Your task to perform on an android device: Go to display settings Image 0: 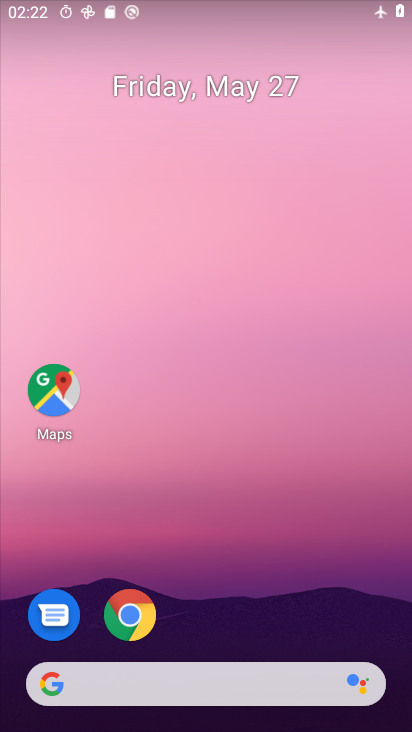
Step 0: drag from (378, 636) to (379, 162)
Your task to perform on an android device: Go to display settings Image 1: 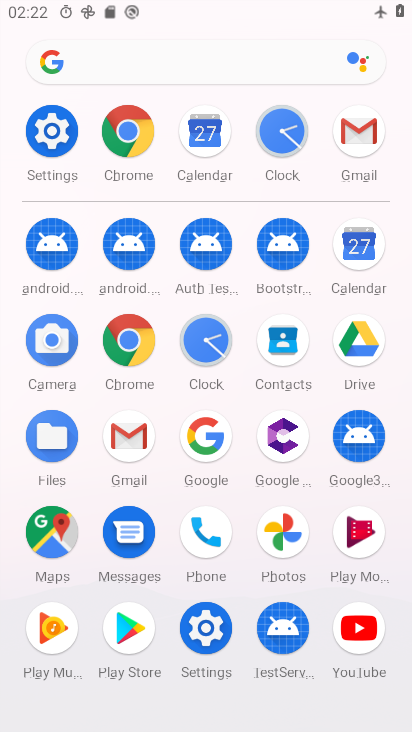
Step 1: click (194, 628)
Your task to perform on an android device: Go to display settings Image 2: 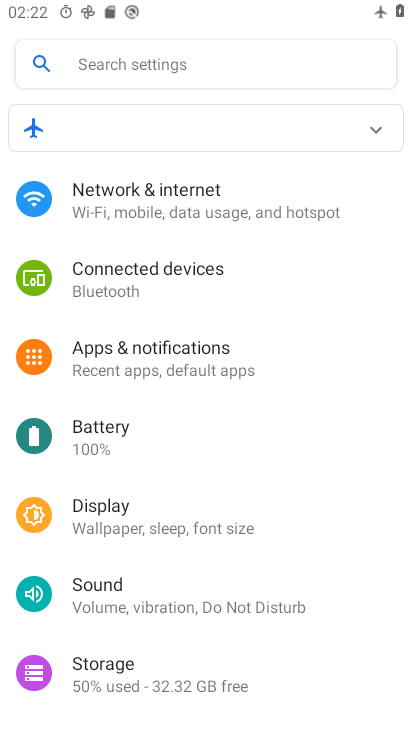
Step 2: drag from (336, 631) to (342, 577)
Your task to perform on an android device: Go to display settings Image 3: 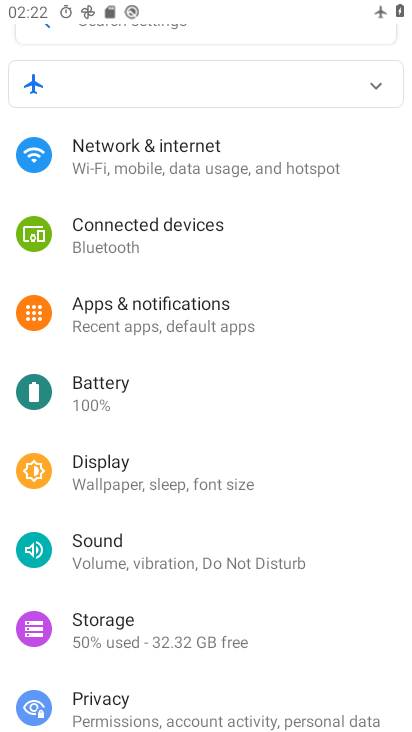
Step 3: drag from (340, 633) to (340, 564)
Your task to perform on an android device: Go to display settings Image 4: 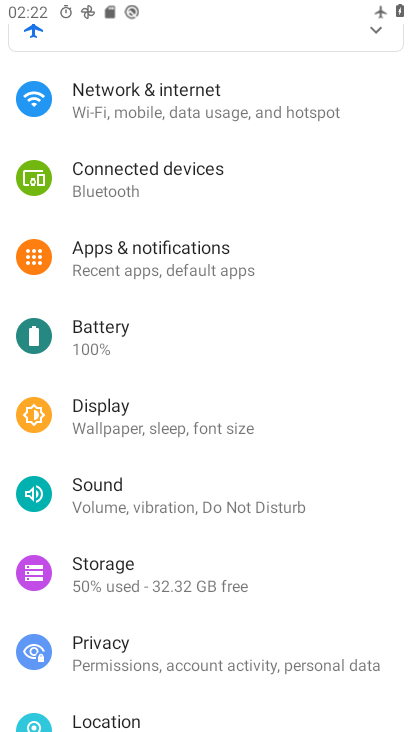
Step 4: drag from (335, 643) to (337, 550)
Your task to perform on an android device: Go to display settings Image 5: 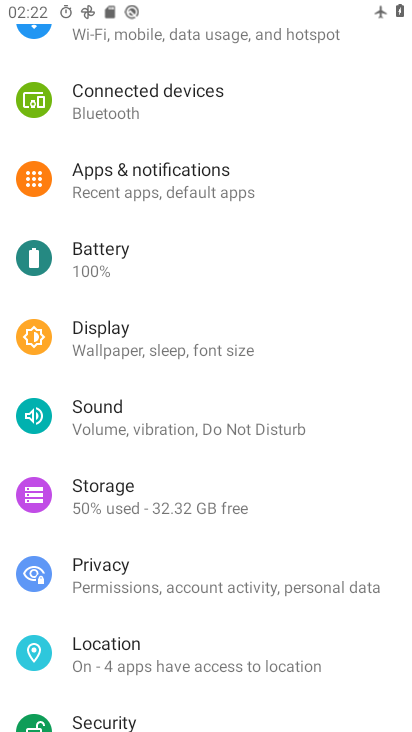
Step 5: drag from (335, 631) to (342, 575)
Your task to perform on an android device: Go to display settings Image 6: 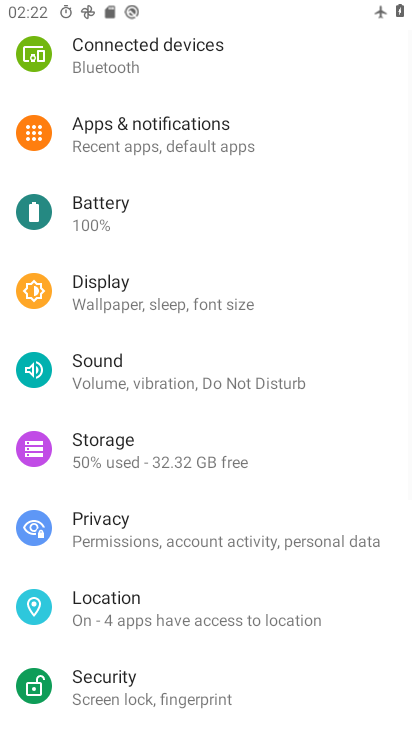
Step 6: drag from (345, 655) to (350, 568)
Your task to perform on an android device: Go to display settings Image 7: 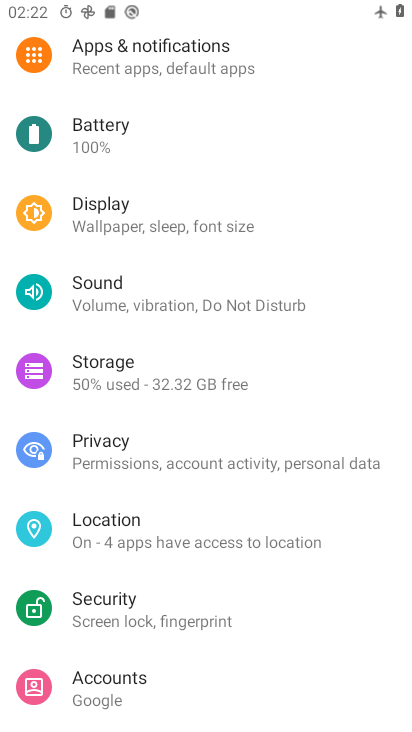
Step 7: drag from (348, 643) to (355, 573)
Your task to perform on an android device: Go to display settings Image 8: 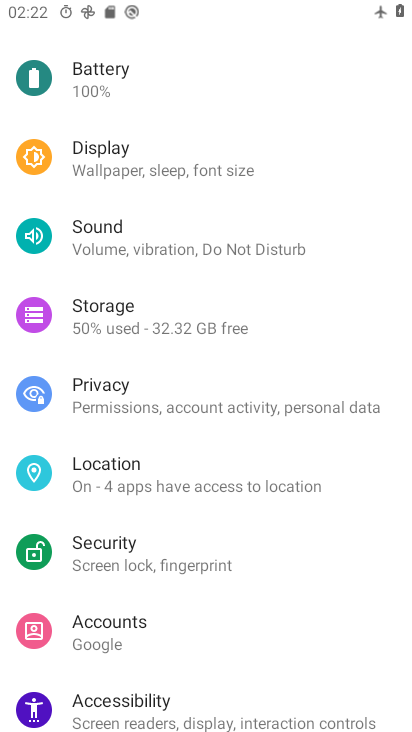
Step 8: drag from (348, 656) to (353, 572)
Your task to perform on an android device: Go to display settings Image 9: 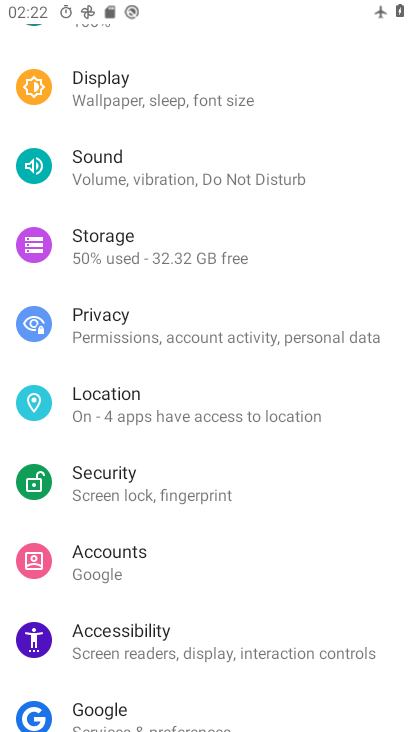
Step 9: drag from (339, 631) to (336, 535)
Your task to perform on an android device: Go to display settings Image 10: 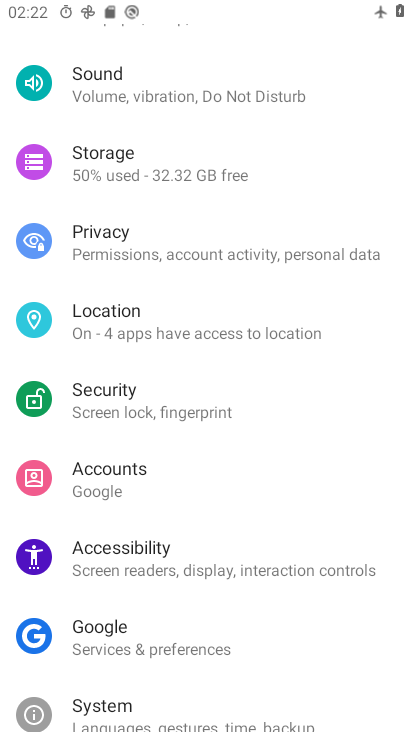
Step 10: drag from (320, 634) to (324, 557)
Your task to perform on an android device: Go to display settings Image 11: 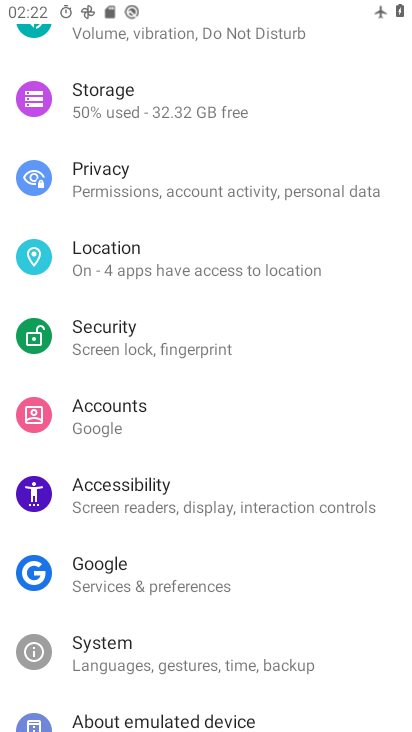
Step 11: drag from (326, 642) to (332, 550)
Your task to perform on an android device: Go to display settings Image 12: 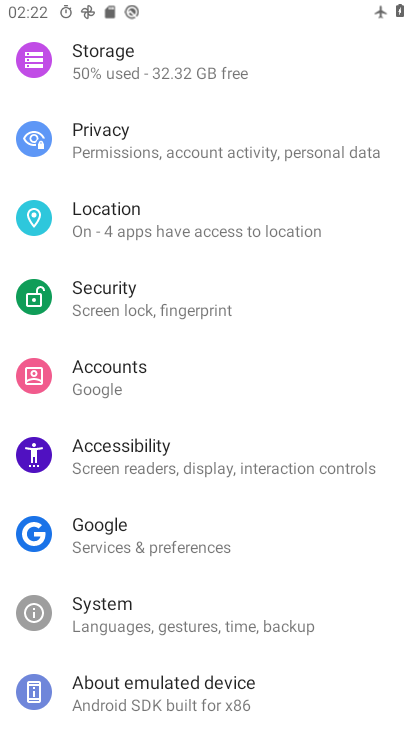
Step 12: drag from (334, 629) to (337, 556)
Your task to perform on an android device: Go to display settings Image 13: 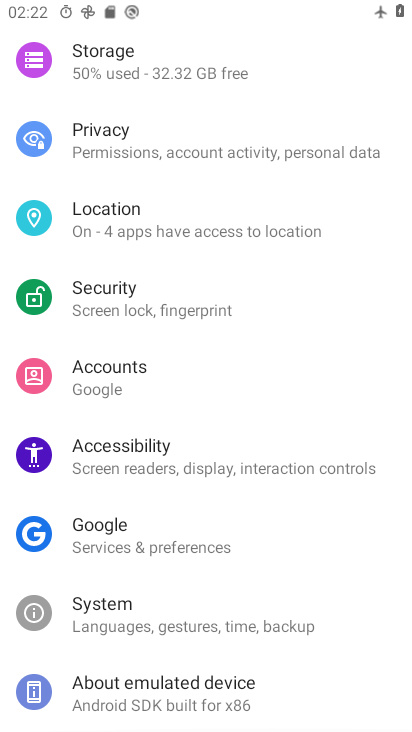
Step 13: drag from (334, 482) to (336, 560)
Your task to perform on an android device: Go to display settings Image 14: 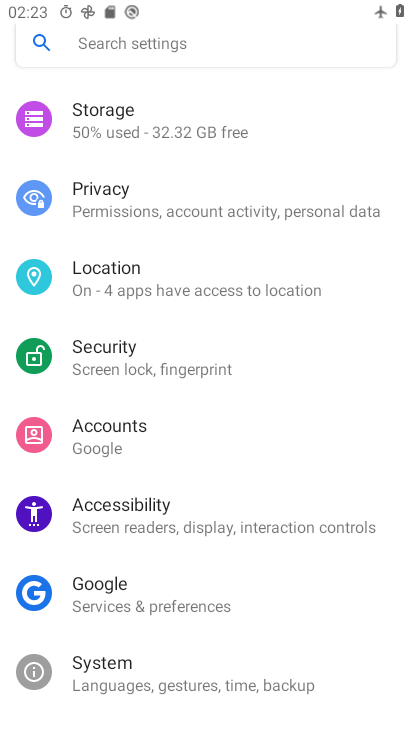
Step 14: drag from (336, 449) to (341, 542)
Your task to perform on an android device: Go to display settings Image 15: 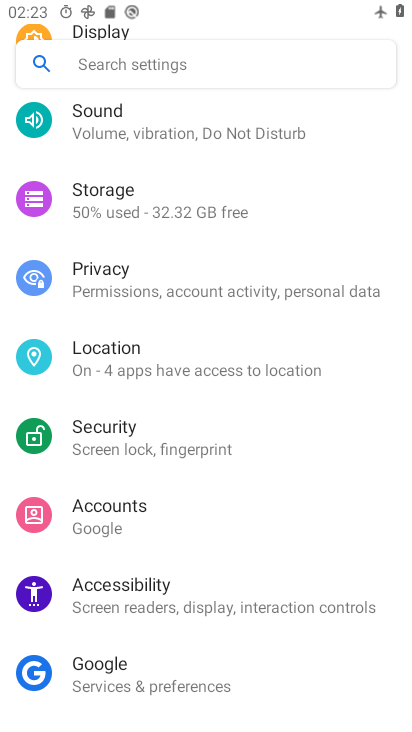
Step 15: drag from (341, 466) to (341, 560)
Your task to perform on an android device: Go to display settings Image 16: 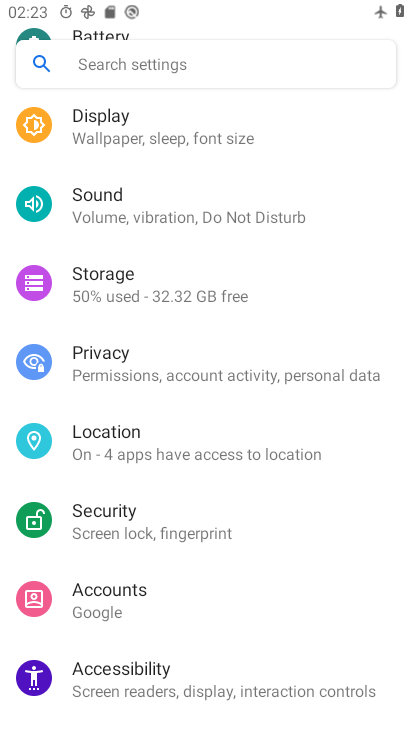
Step 16: drag from (341, 440) to (342, 528)
Your task to perform on an android device: Go to display settings Image 17: 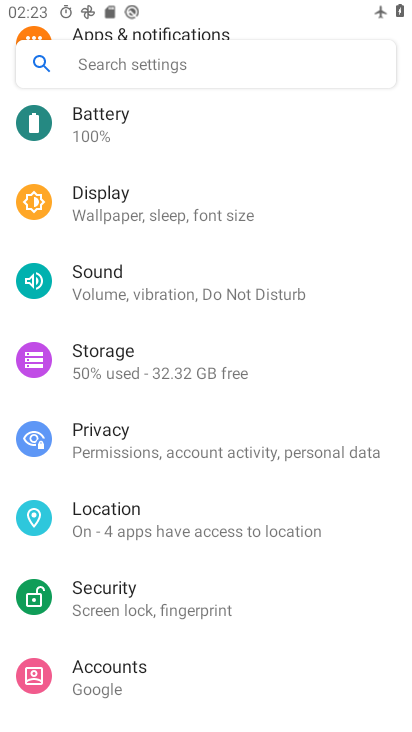
Step 17: drag from (341, 413) to (341, 513)
Your task to perform on an android device: Go to display settings Image 18: 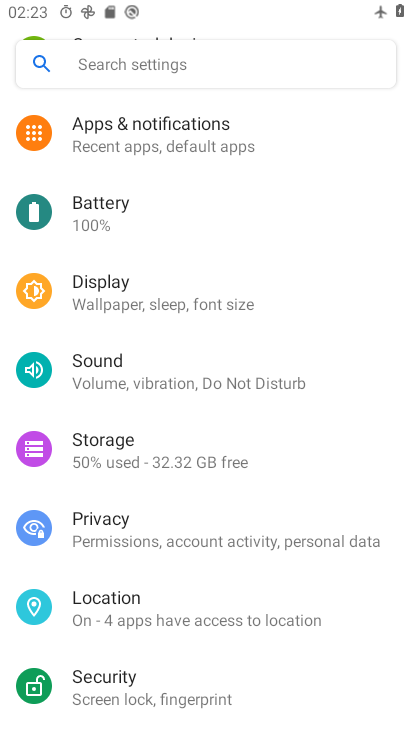
Step 18: drag from (341, 406) to (341, 491)
Your task to perform on an android device: Go to display settings Image 19: 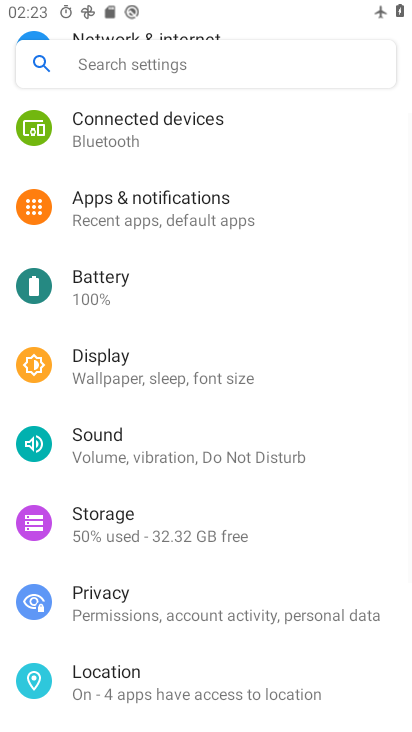
Step 19: drag from (337, 401) to (337, 475)
Your task to perform on an android device: Go to display settings Image 20: 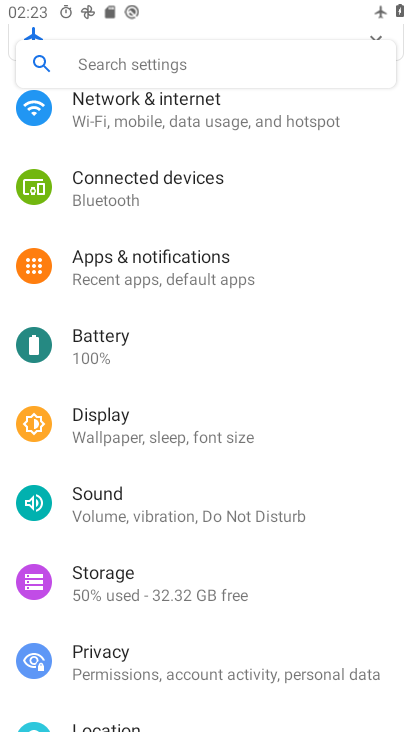
Step 20: drag from (324, 365) to (326, 459)
Your task to perform on an android device: Go to display settings Image 21: 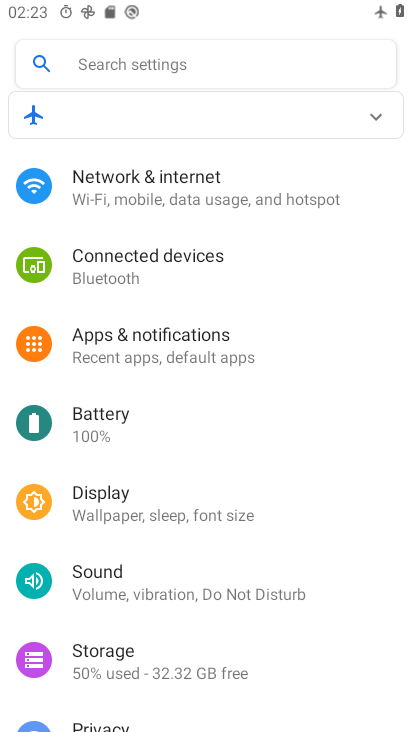
Step 21: drag from (326, 372) to (323, 437)
Your task to perform on an android device: Go to display settings Image 22: 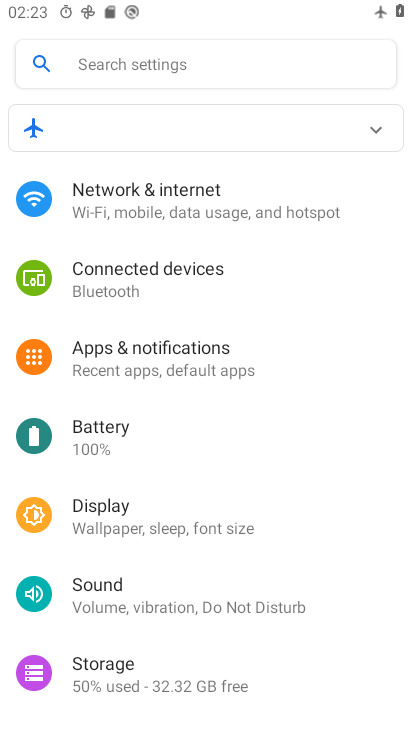
Step 22: click (254, 535)
Your task to perform on an android device: Go to display settings Image 23: 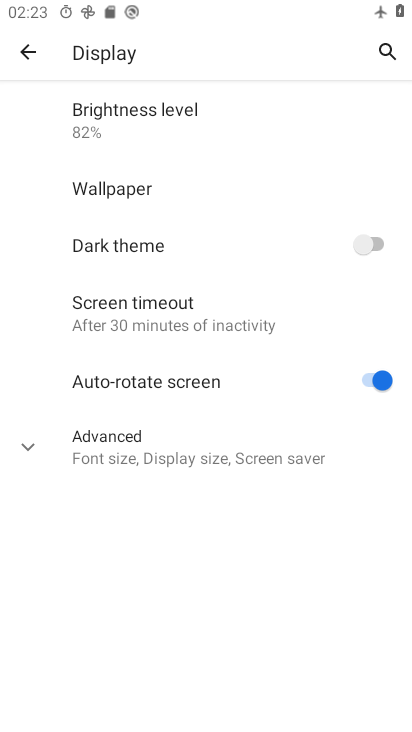
Step 23: task complete